Your task to perform on an android device: toggle pop-ups in chrome Image 0: 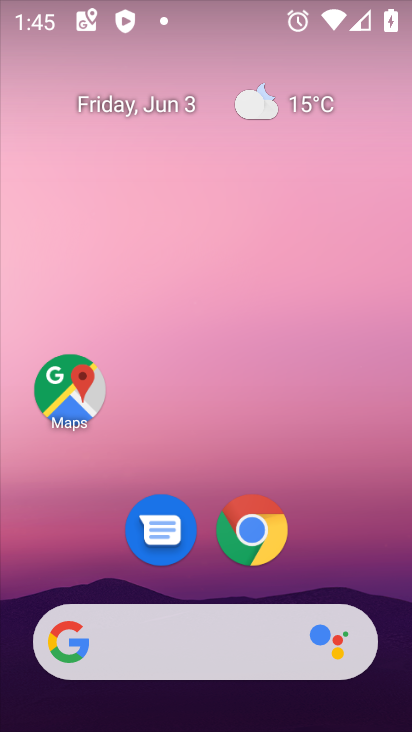
Step 0: click (246, 532)
Your task to perform on an android device: toggle pop-ups in chrome Image 1: 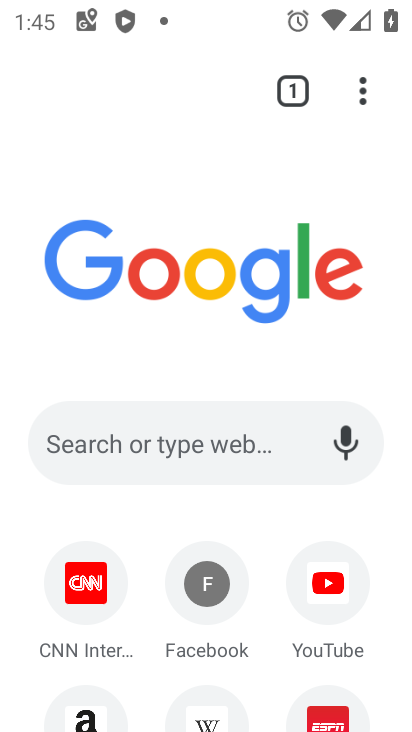
Step 1: drag from (362, 90) to (285, 551)
Your task to perform on an android device: toggle pop-ups in chrome Image 2: 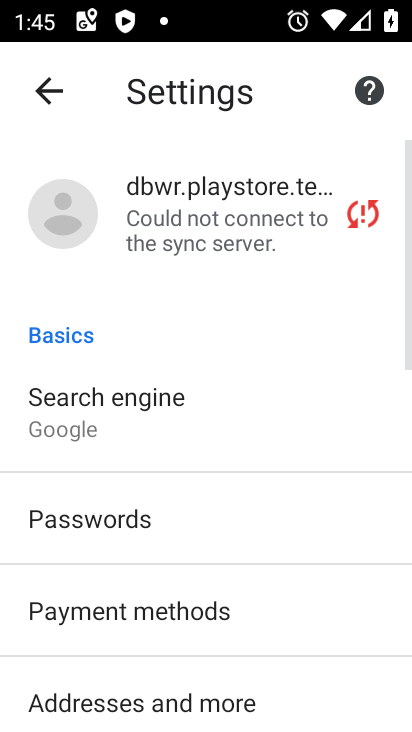
Step 2: drag from (303, 341) to (267, 120)
Your task to perform on an android device: toggle pop-ups in chrome Image 3: 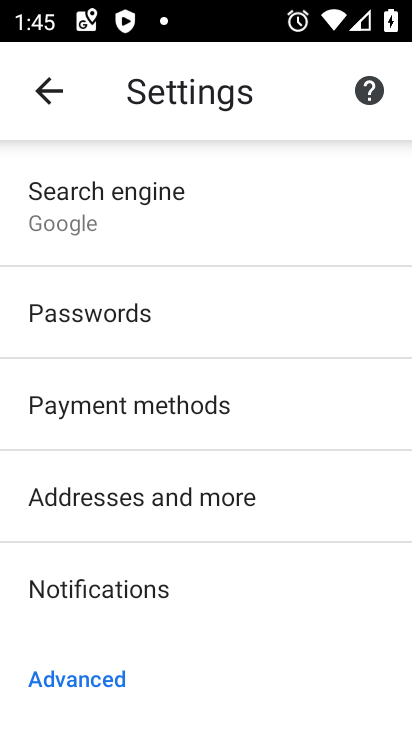
Step 3: drag from (257, 408) to (235, 90)
Your task to perform on an android device: toggle pop-ups in chrome Image 4: 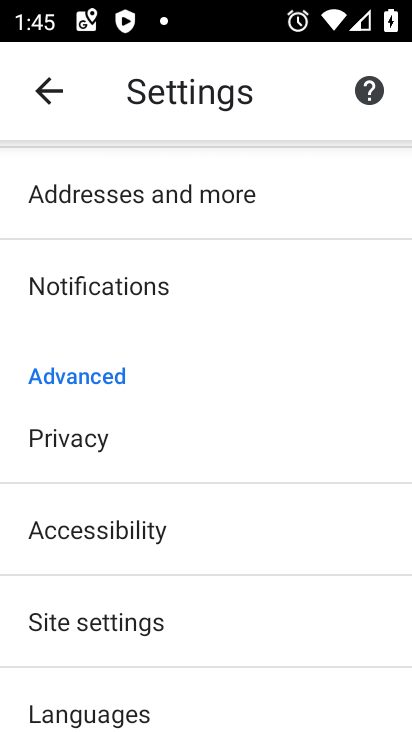
Step 4: click (187, 621)
Your task to perform on an android device: toggle pop-ups in chrome Image 5: 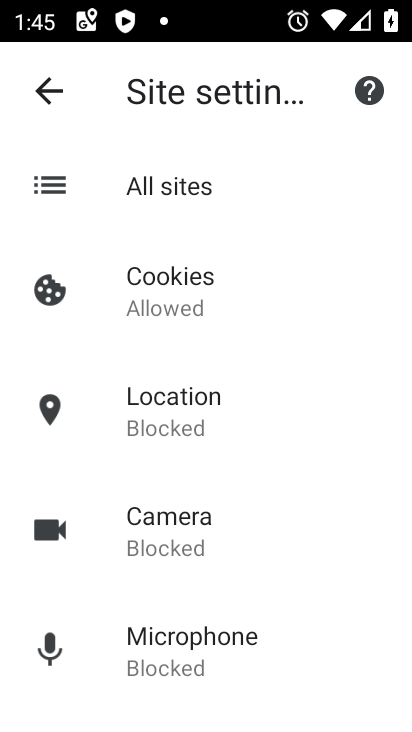
Step 5: drag from (280, 227) to (248, 23)
Your task to perform on an android device: toggle pop-ups in chrome Image 6: 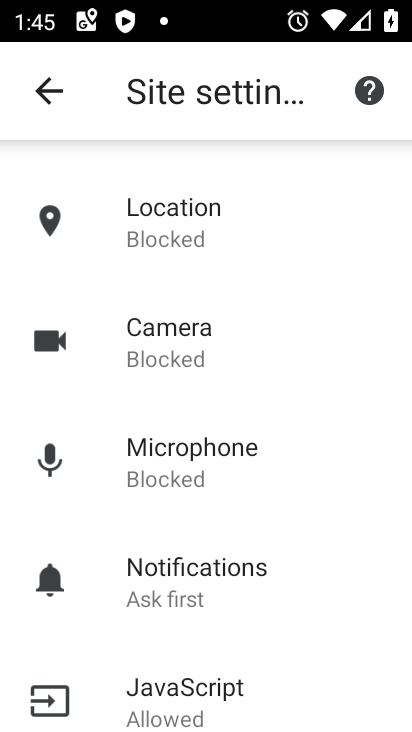
Step 6: drag from (341, 634) to (298, 223)
Your task to perform on an android device: toggle pop-ups in chrome Image 7: 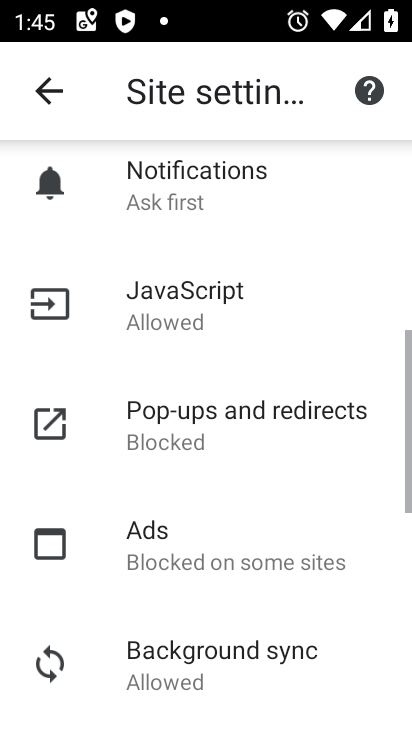
Step 7: click (258, 421)
Your task to perform on an android device: toggle pop-ups in chrome Image 8: 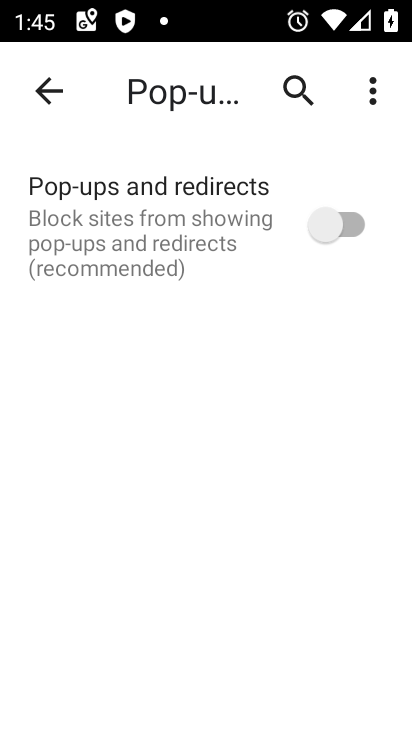
Step 8: click (323, 227)
Your task to perform on an android device: toggle pop-ups in chrome Image 9: 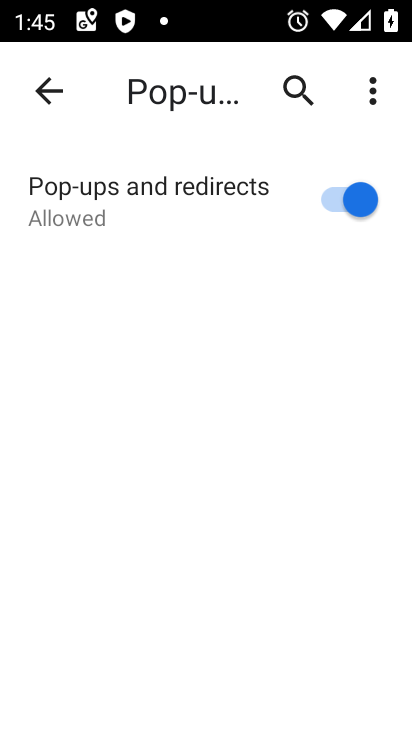
Step 9: task complete